Your task to perform on an android device: turn off smart reply in the gmail app Image 0: 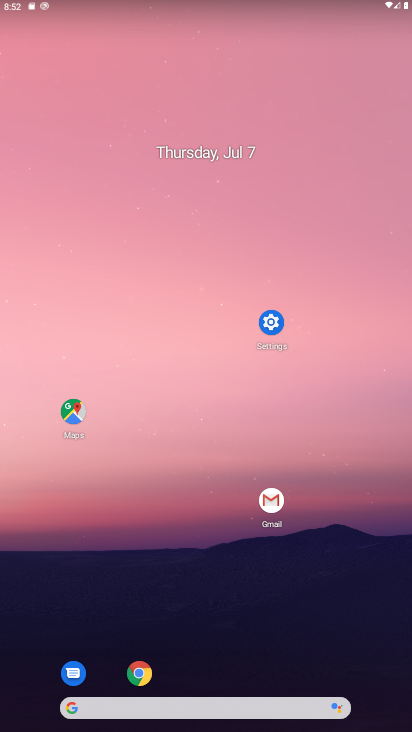
Step 0: click (269, 491)
Your task to perform on an android device: turn off smart reply in the gmail app Image 1: 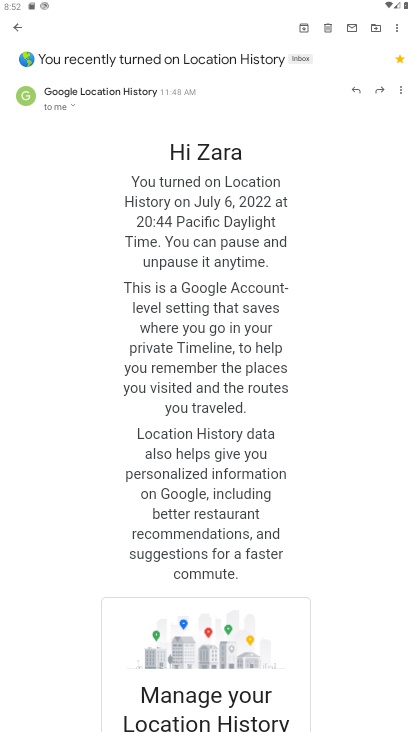
Step 1: press back button
Your task to perform on an android device: turn off smart reply in the gmail app Image 2: 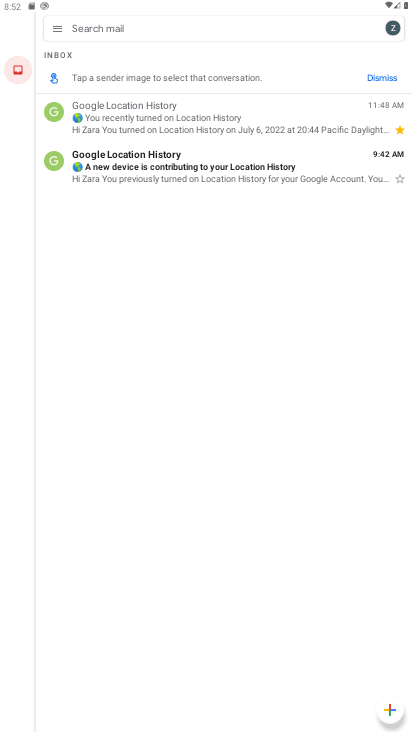
Step 2: click (52, 25)
Your task to perform on an android device: turn off smart reply in the gmail app Image 3: 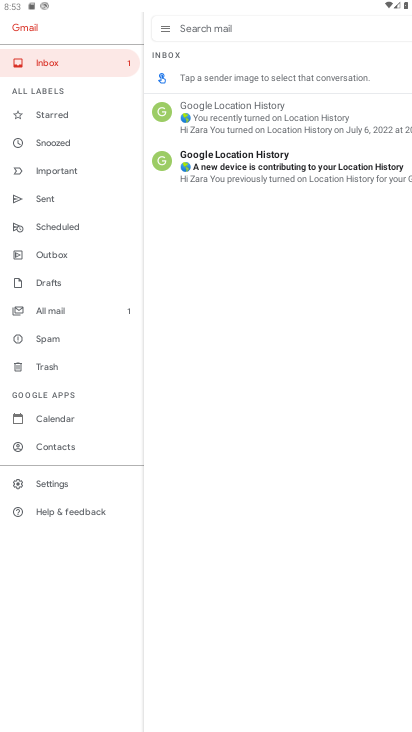
Step 3: click (46, 483)
Your task to perform on an android device: turn off smart reply in the gmail app Image 4: 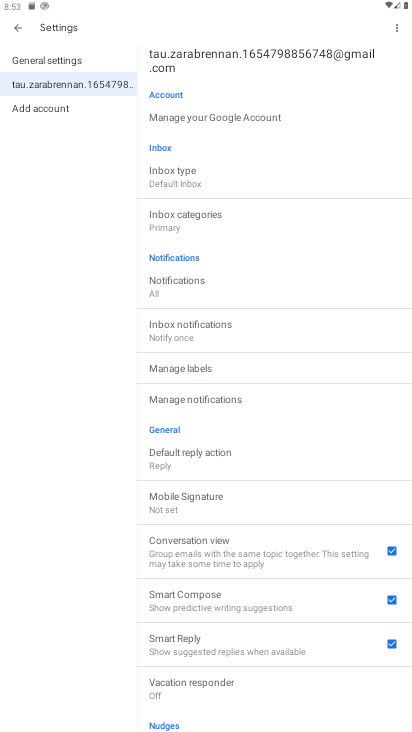
Step 4: click (204, 644)
Your task to perform on an android device: turn off smart reply in the gmail app Image 5: 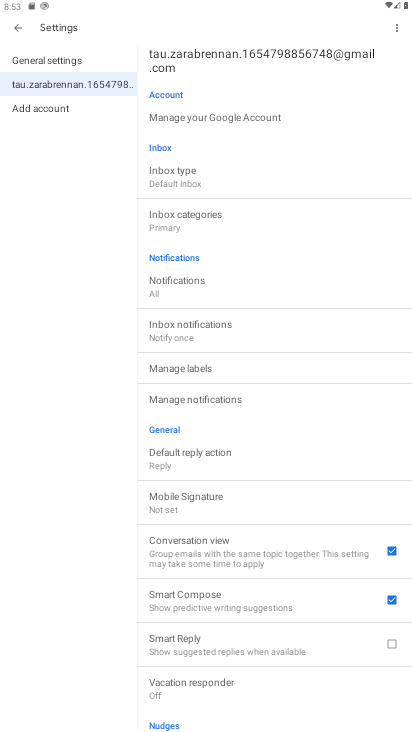
Step 5: task complete